Your task to perform on an android device: open app "Indeed Job Search" (install if not already installed) Image 0: 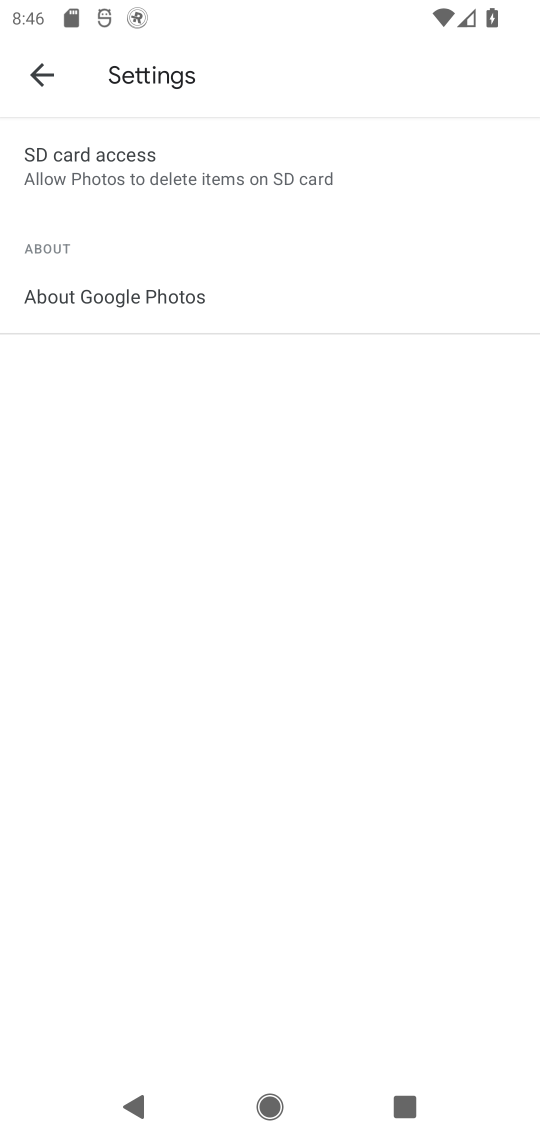
Step 0: press home button
Your task to perform on an android device: open app "Indeed Job Search" (install if not already installed) Image 1: 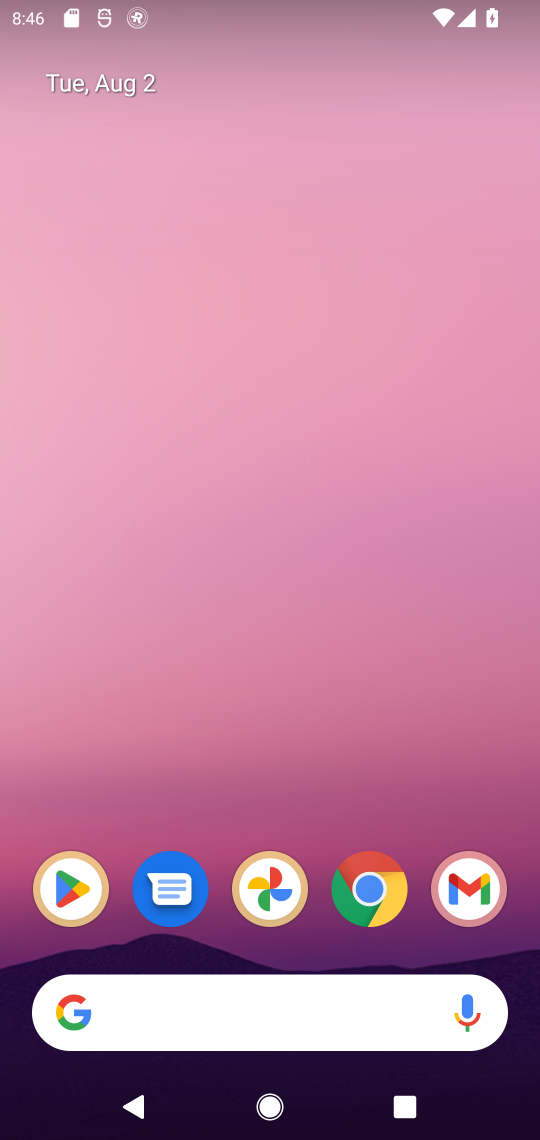
Step 1: click (78, 889)
Your task to perform on an android device: open app "Indeed Job Search" (install if not already installed) Image 2: 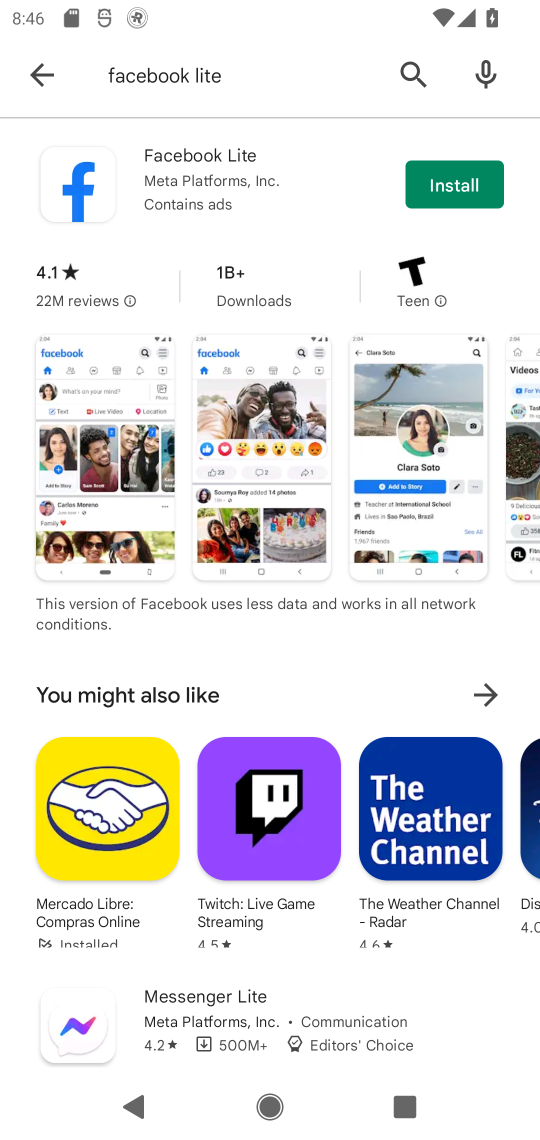
Step 2: click (416, 67)
Your task to perform on an android device: open app "Indeed Job Search" (install if not already installed) Image 3: 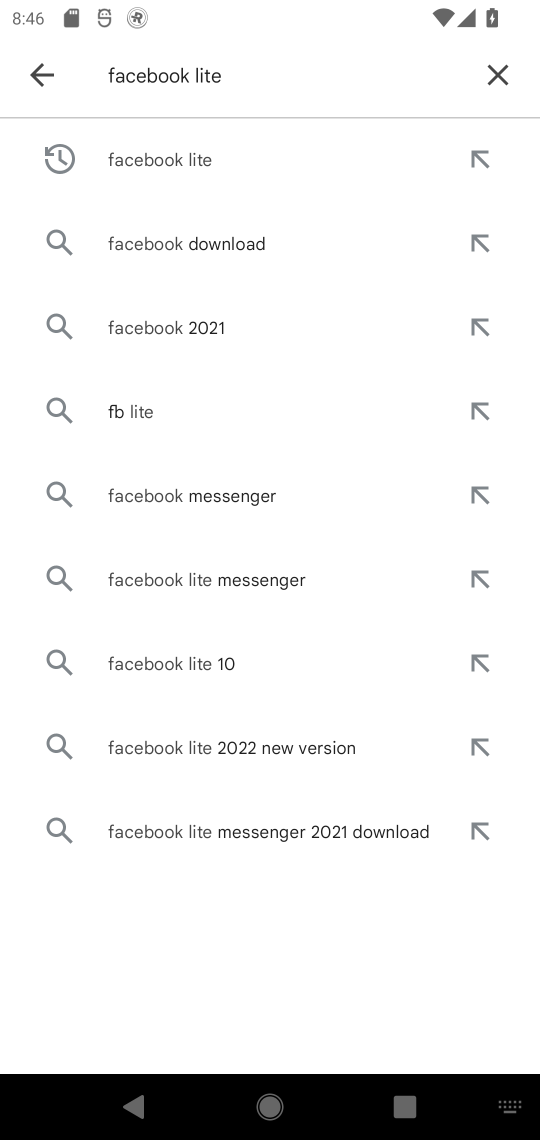
Step 3: type "Indeed Job Search"
Your task to perform on an android device: open app "Indeed Job Search" (install if not already installed) Image 4: 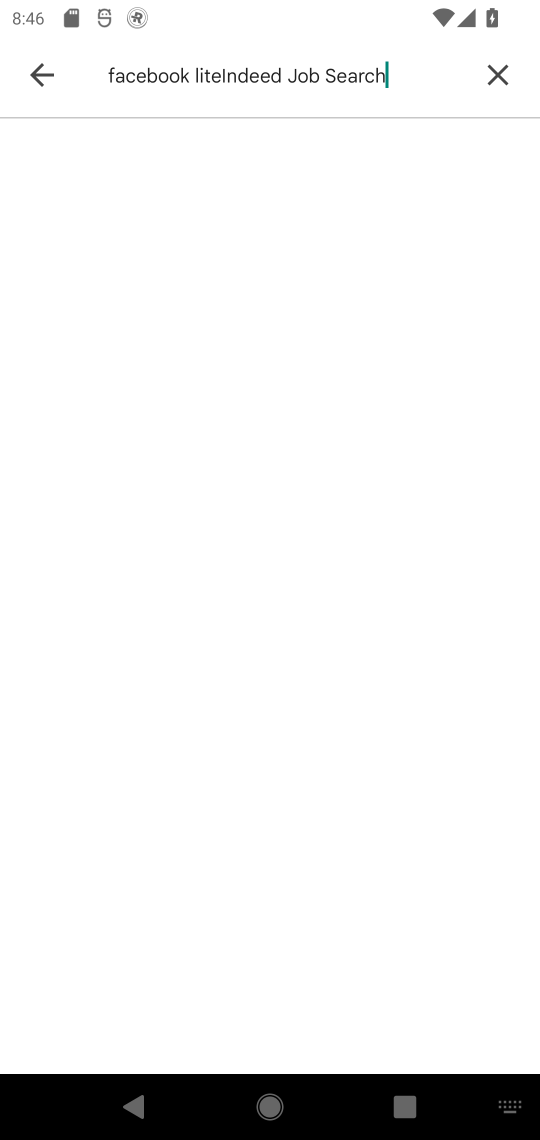
Step 4: click (493, 66)
Your task to perform on an android device: open app "Indeed Job Search" (install if not already installed) Image 5: 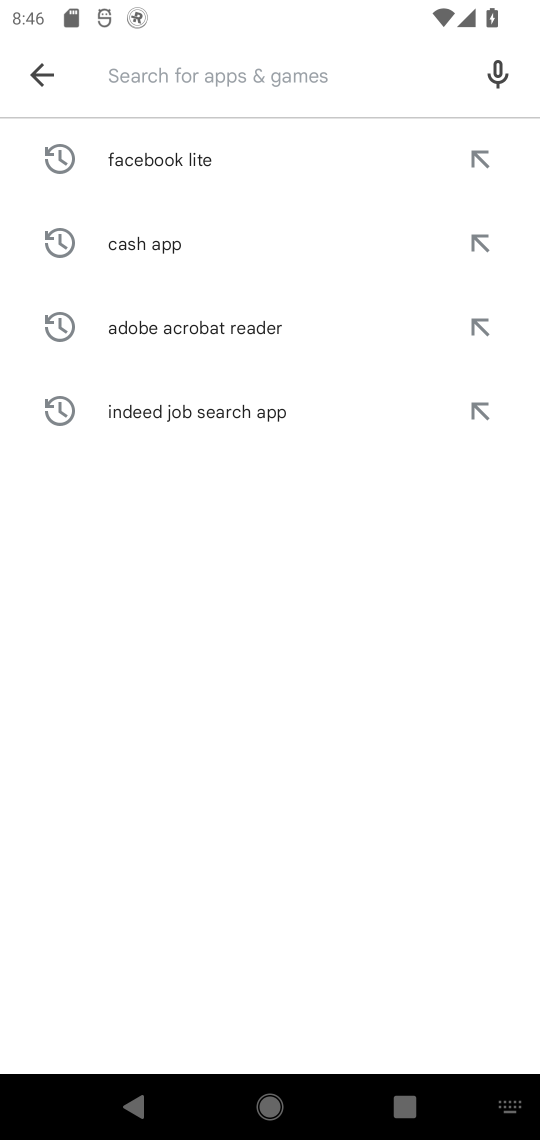
Step 5: type "Indeed Job Search"
Your task to perform on an android device: open app "Indeed Job Search" (install if not already installed) Image 6: 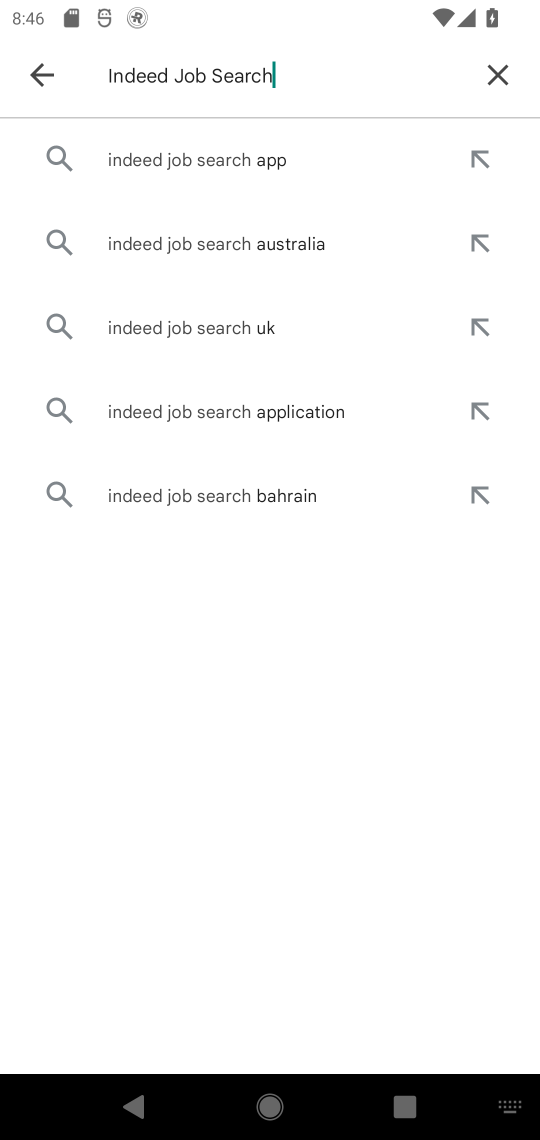
Step 6: click (231, 167)
Your task to perform on an android device: open app "Indeed Job Search" (install if not already installed) Image 7: 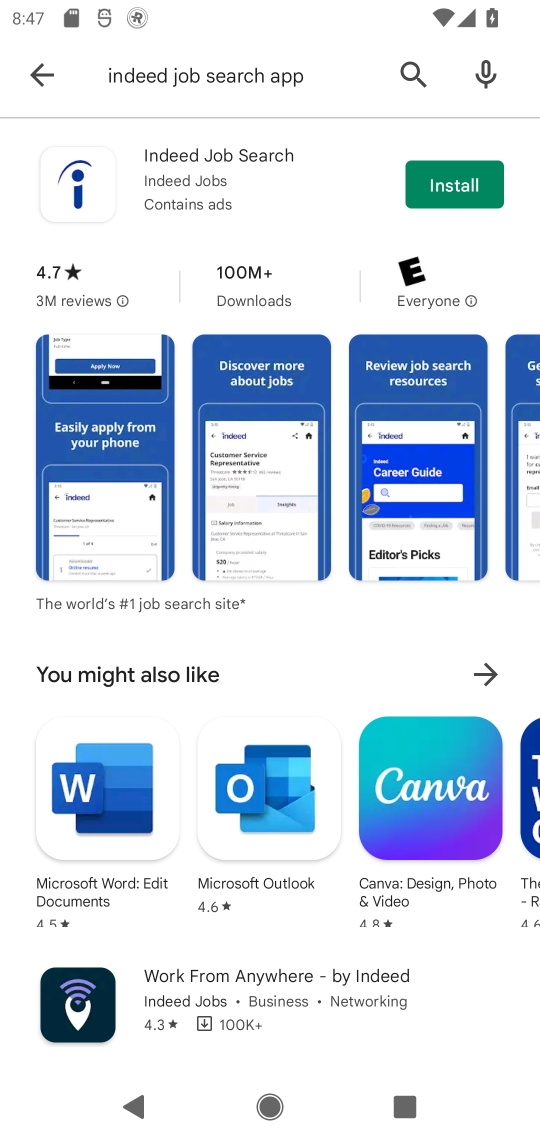
Step 7: click (479, 180)
Your task to perform on an android device: open app "Indeed Job Search" (install if not already installed) Image 8: 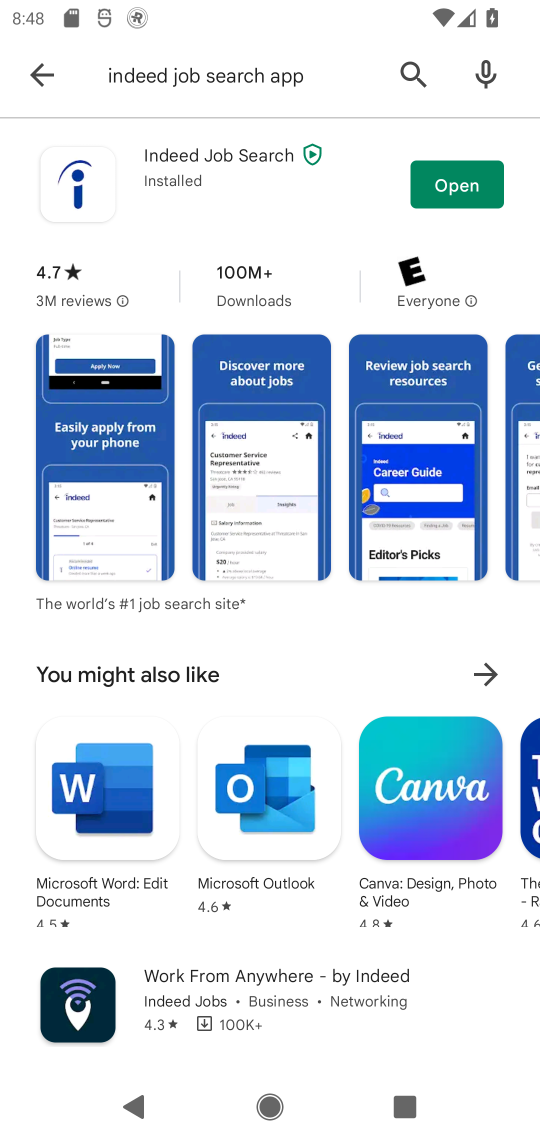
Step 8: click (466, 183)
Your task to perform on an android device: open app "Indeed Job Search" (install if not already installed) Image 9: 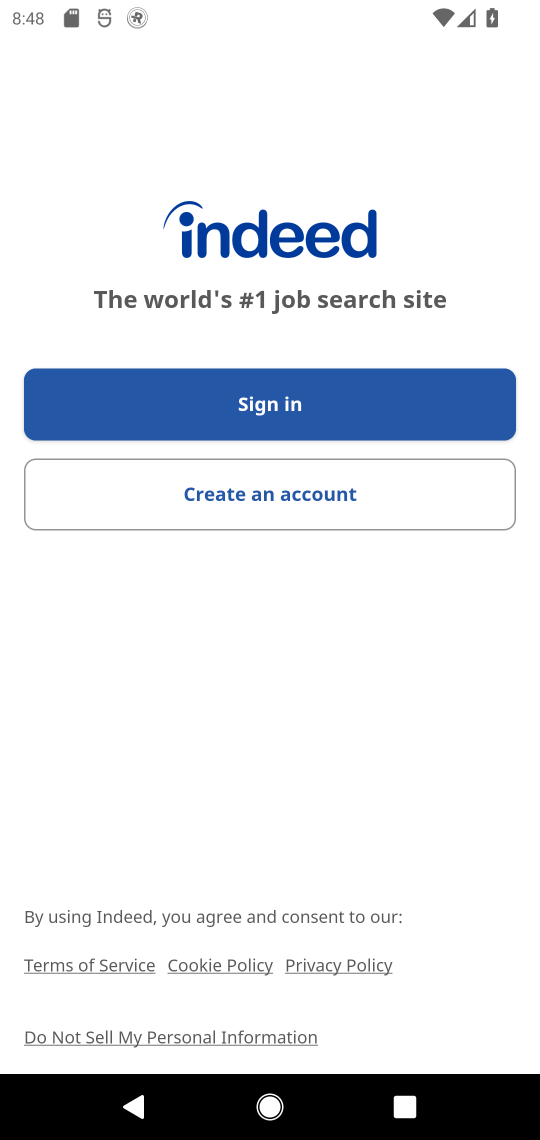
Step 9: task complete